Your task to perform on an android device: Set the phone to "Do not disturb". Image 0: 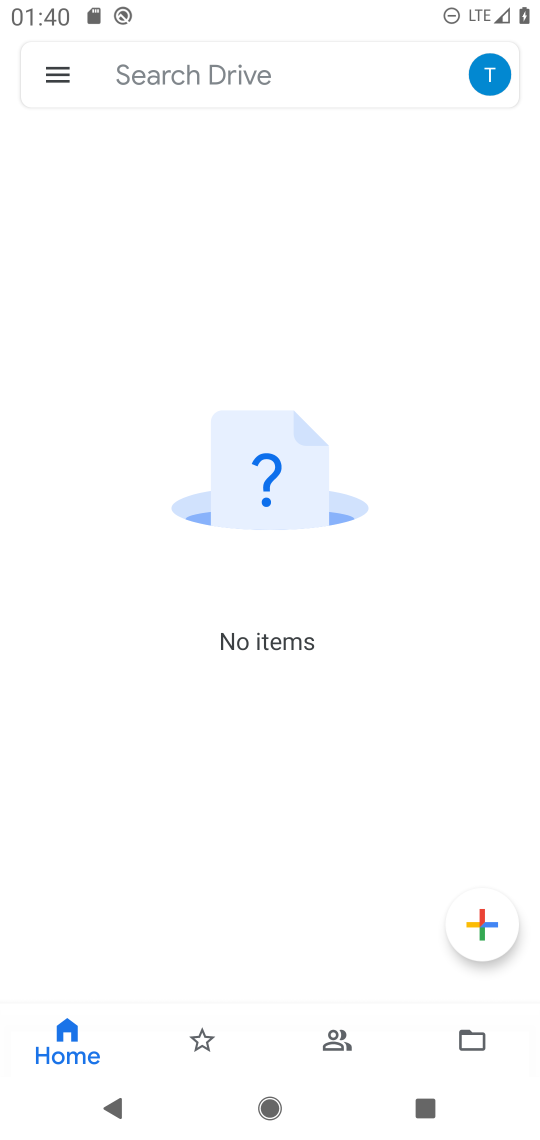
Step 0: press home button
Your task to perform on an android device: Set the phone to "Do not disturb". Image 1: 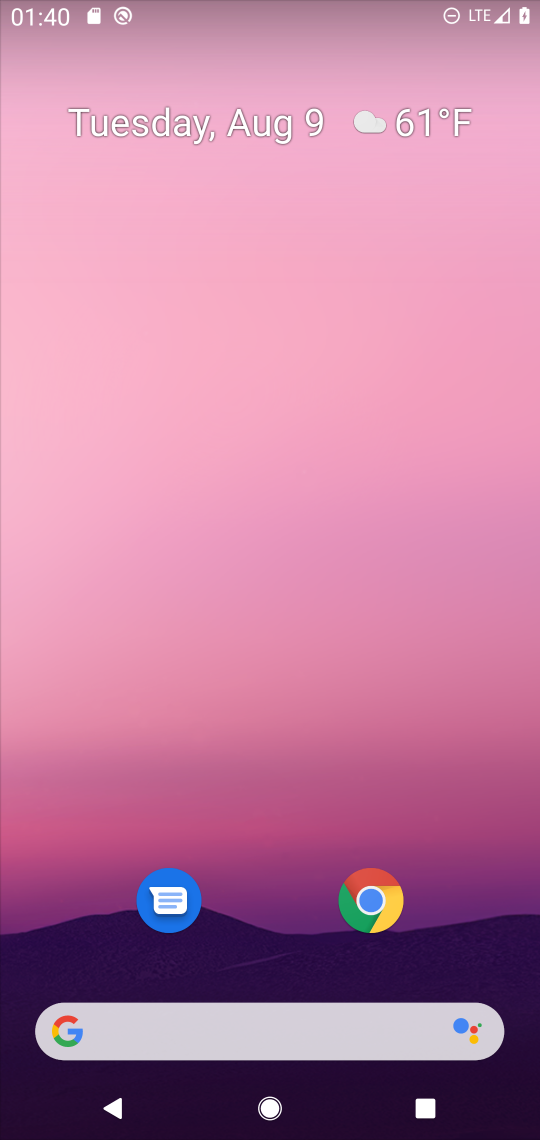
Step 1: drag from (267, 902) to (286, 221)
Your task to perform on an android device: Set the phone to "Do not disturb". Image 2: 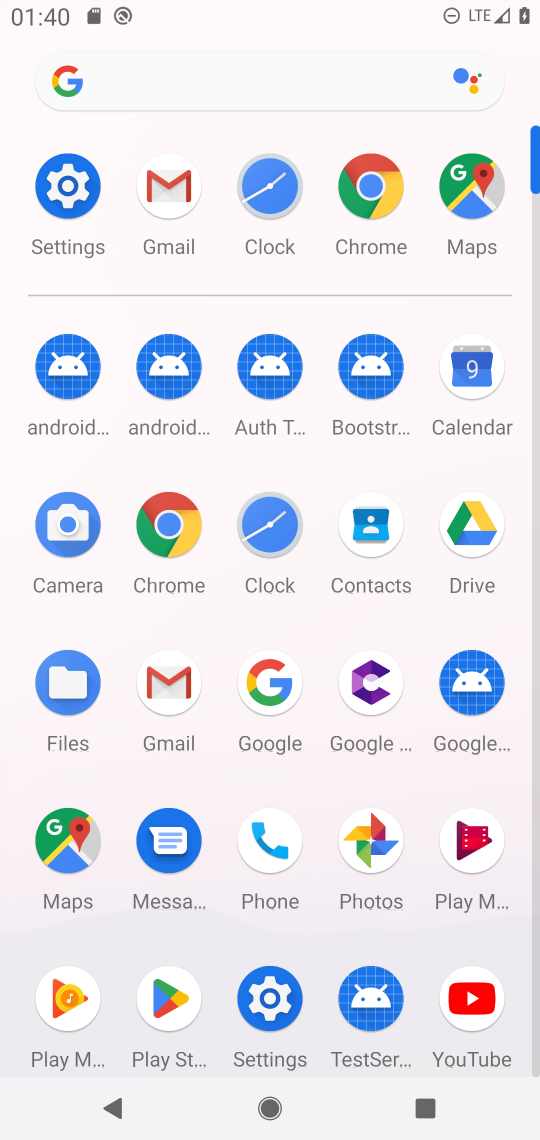
Step 2: click (68, 195)
Your task to perform on an android device: Set the phone to "Do not disturb". Image 3: 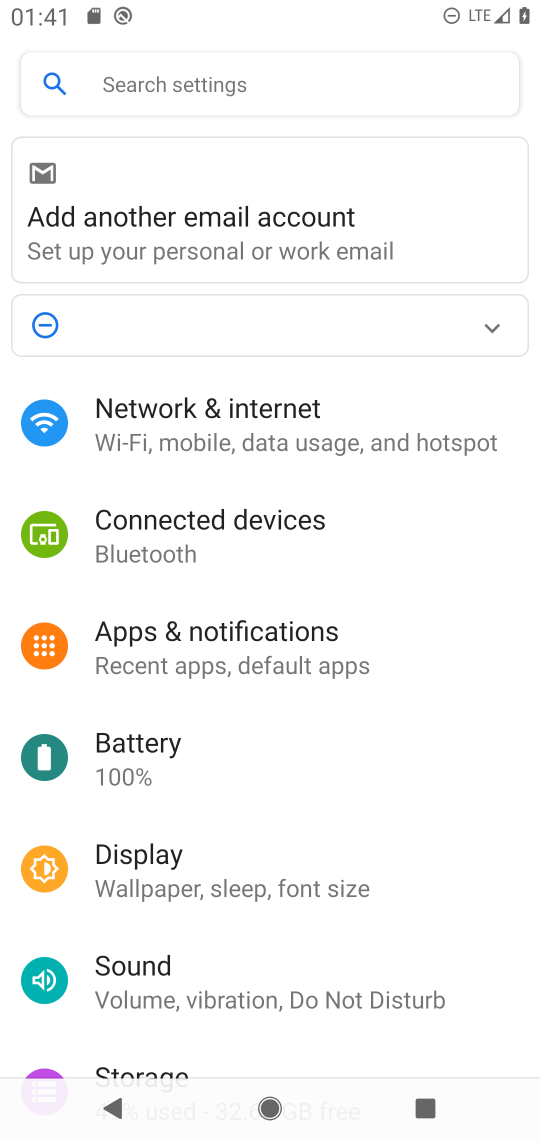
Step 3: drag from (470, 746) to (467, 515)
Your task to perform on an android device: Set the phone to "Do not disturb". Image 4: 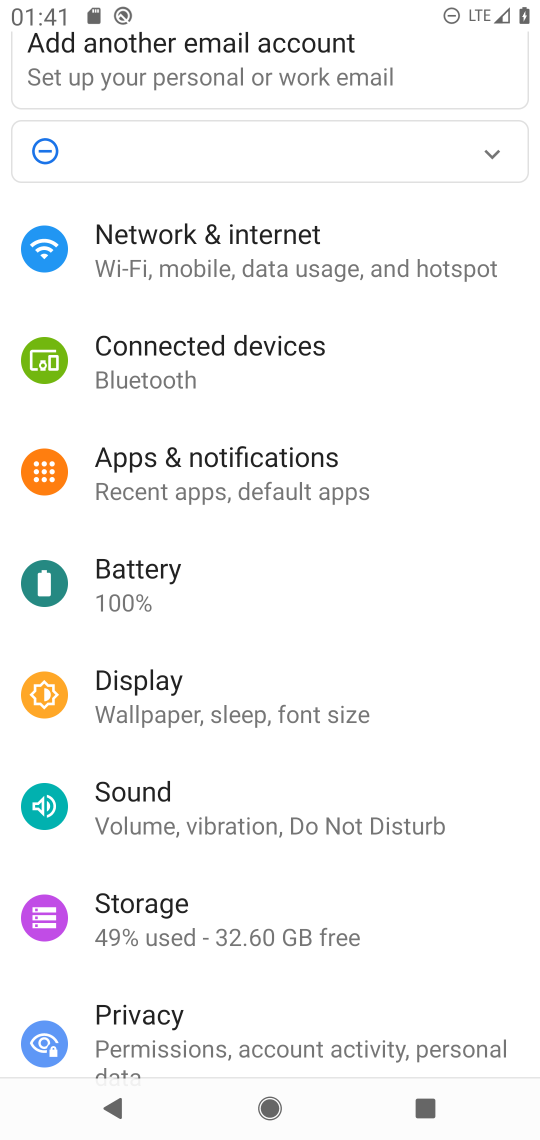
Step 4: drag from (425, 924) to (430, 557)
Your task to perform on an android device: Set the phone to "Do not disturb". Image 5: 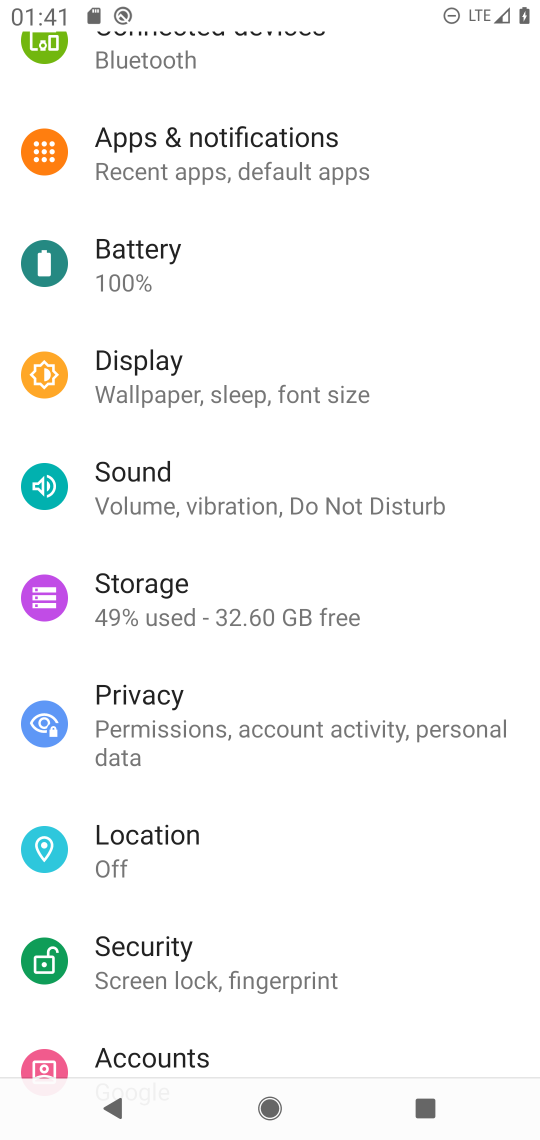
Step 5: drag from (399, 868) to (497, 441)
Your task to perform on an android device: Set the phone to "Do not disturb". Image 6: 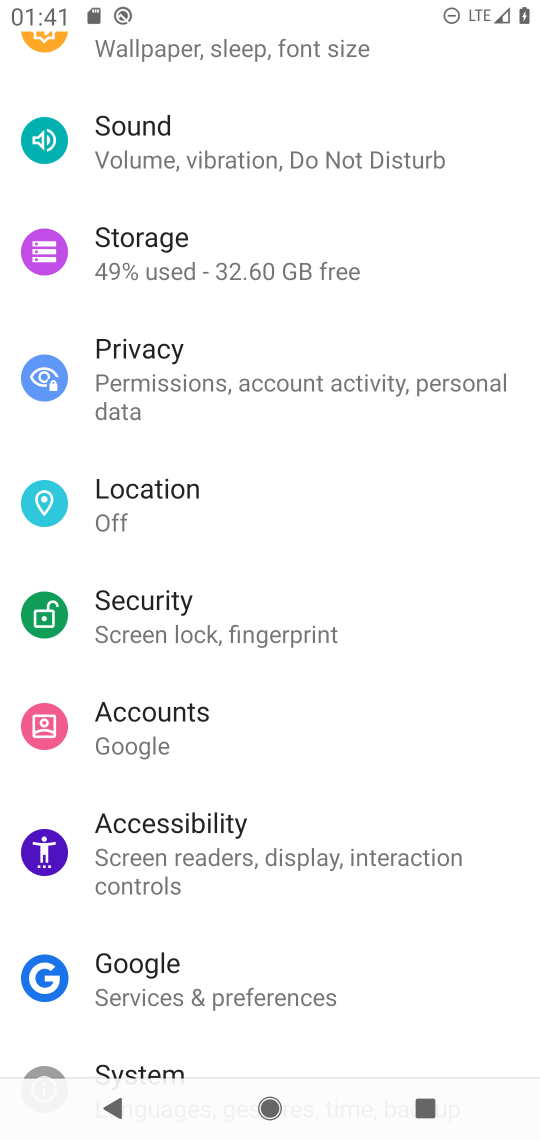
Step 6: drag from (392, 954) to (435, 455)
Your task to perform on an android device: Set the phone to "Do not disturb". Image 7: 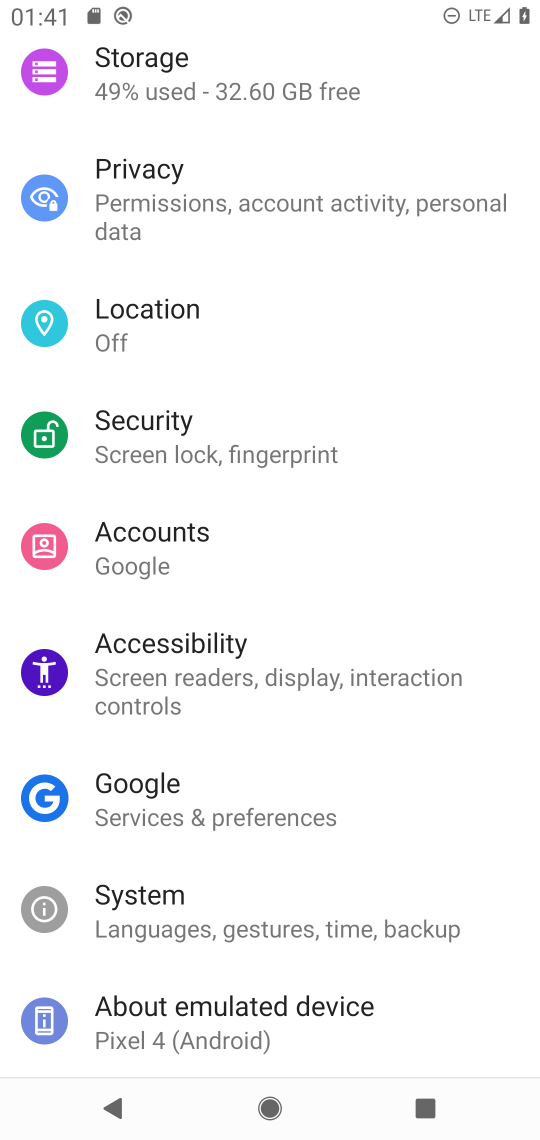
Step 7: drag from (463, 347) to (454, 638)
Your task to perform on an android device: Set the phone to "Do not disturb". Image 8: 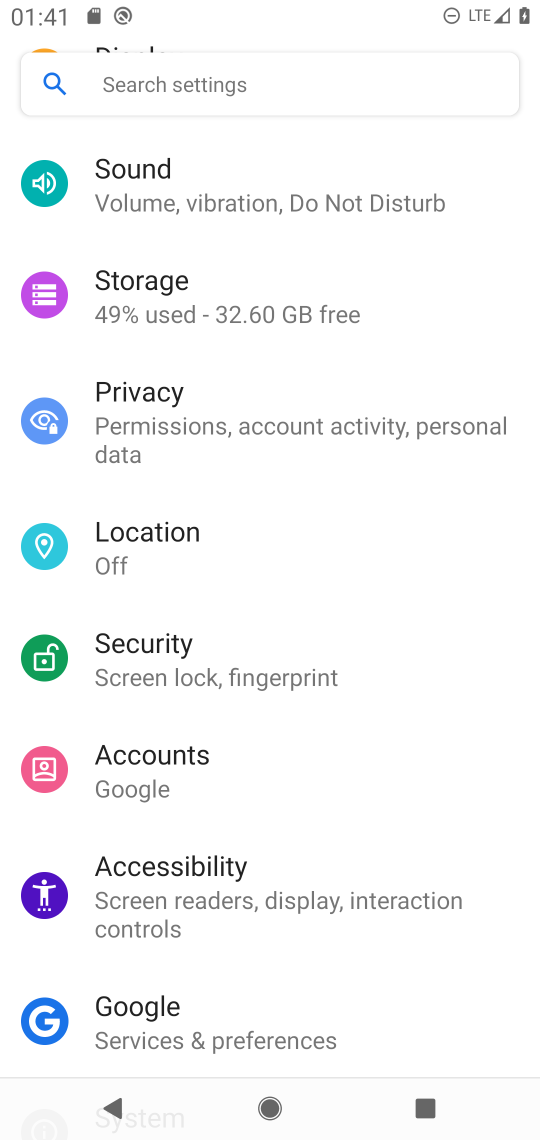
Step 8: drag from (479, 296) to (483, 657)
Your task to perform on an android device: Set the phone to "Do not disturb". Image 9: 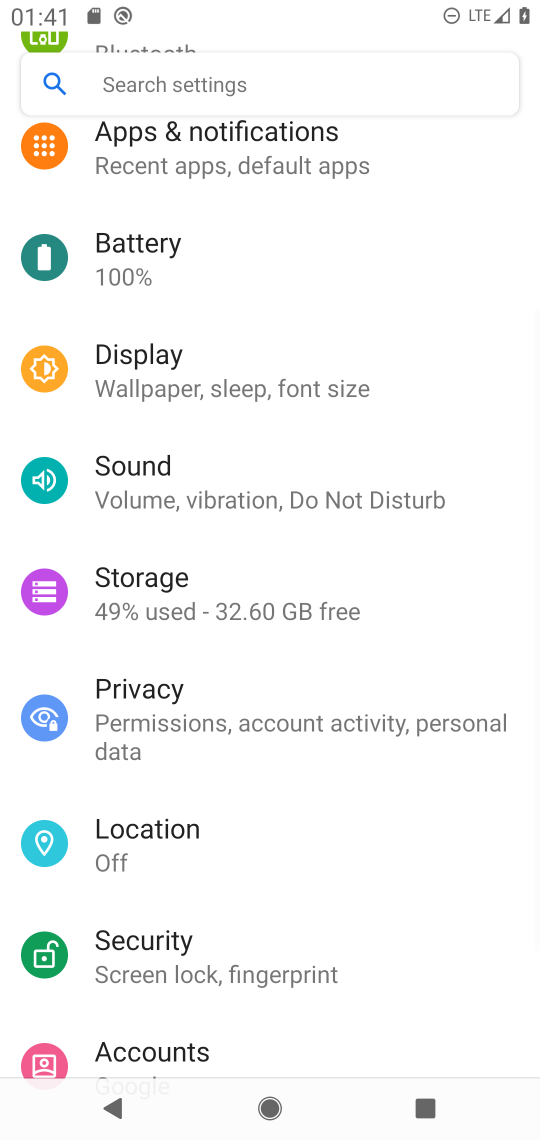
Step 9: drag from (478, 296) to (467, 651)
Your task to perform on an android device: Set the phone to "Do not disturb". Image 10: 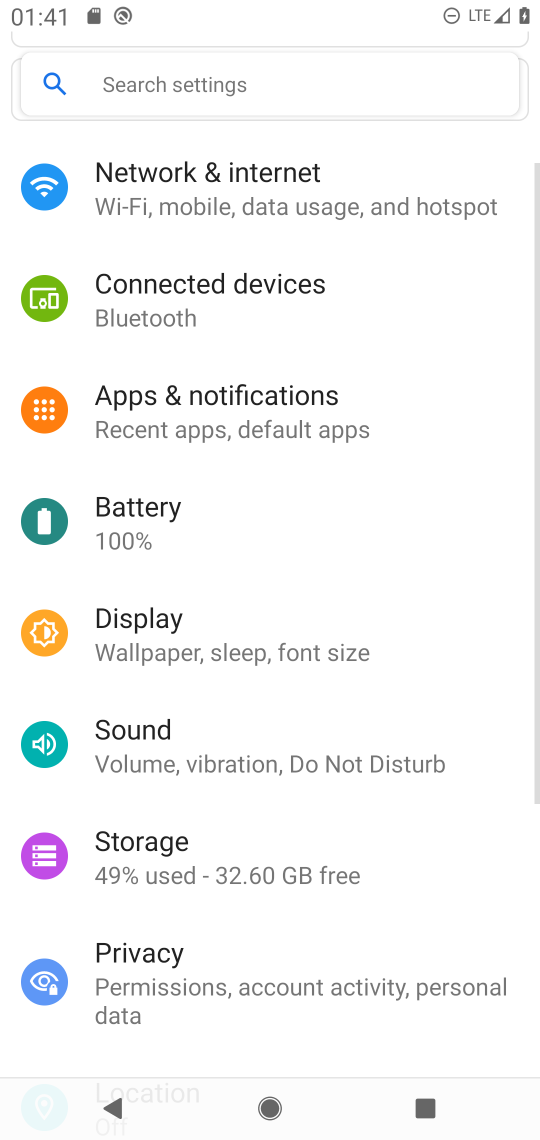
Step 10: drag from (460, 260) to (461, 667)
Your task to perform on an android device: Set the phone to "Do not disturb". Image 11: 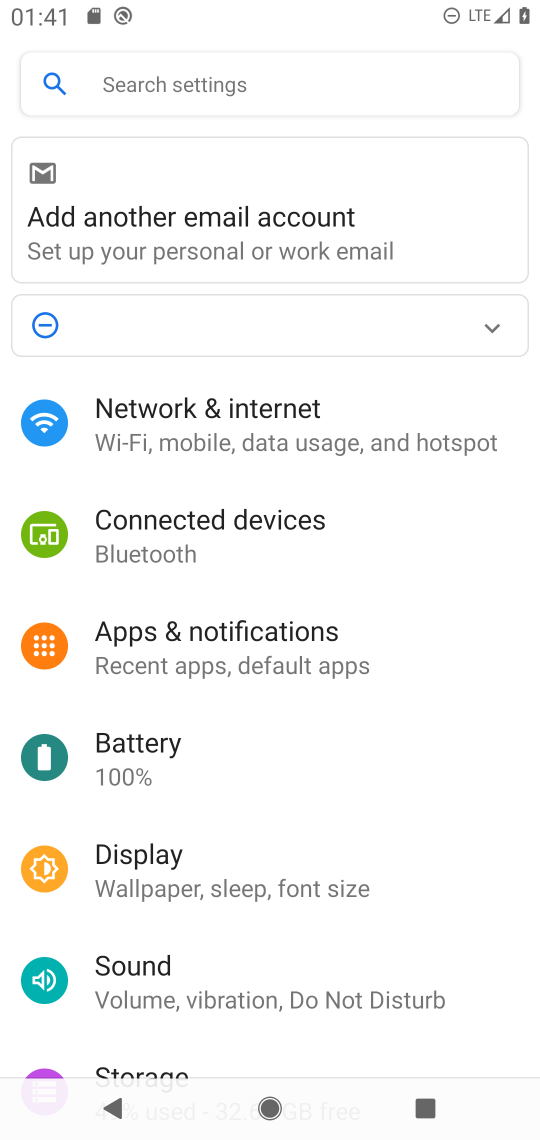
Step 11: drag from (329, 828) to (359, 483)
Your task to perform on an android device: Set the phone to "Do not disturb". Image 12: 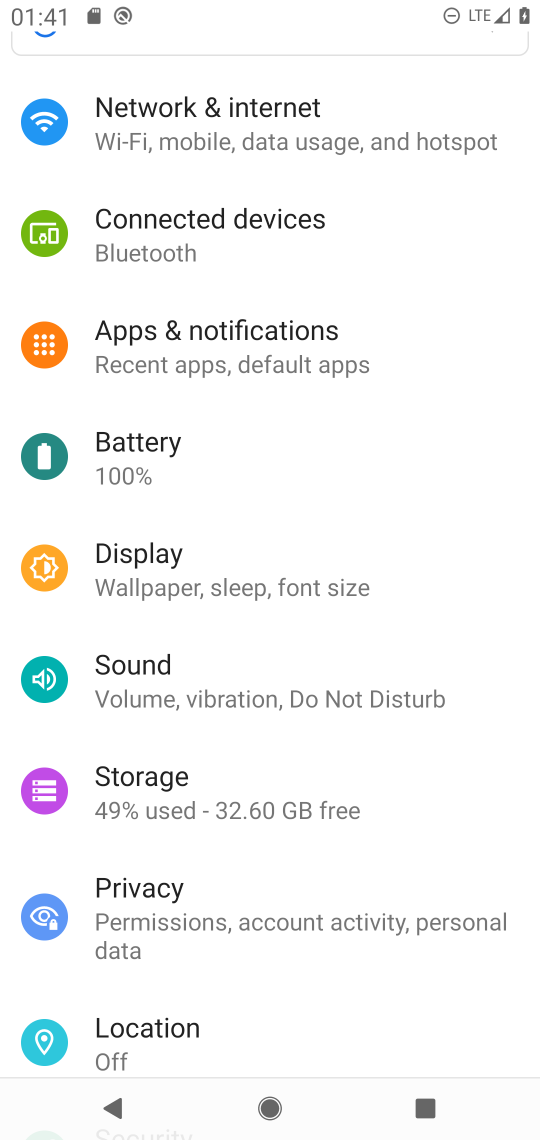
Step 12: click (303, 669)
Your task to perform on an android device: Set the phone to "Do not disturb". Image 13: 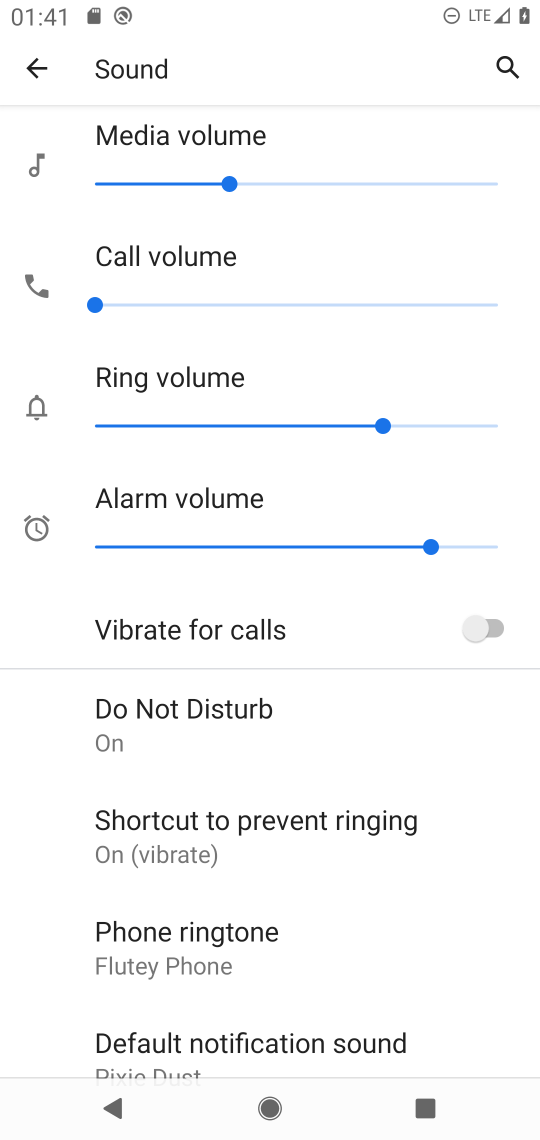
Step 13: task complete